Your task to perform on an android device: turn notification dots off Image 0: 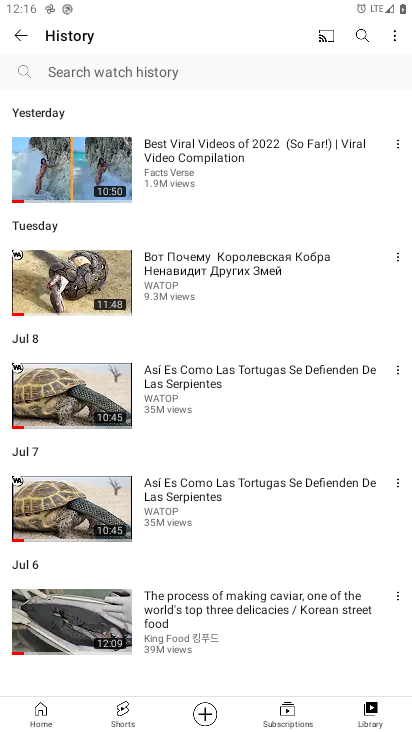
Step 0: press home button
Your task to perform on an android device: turn notification dots off Image 1: 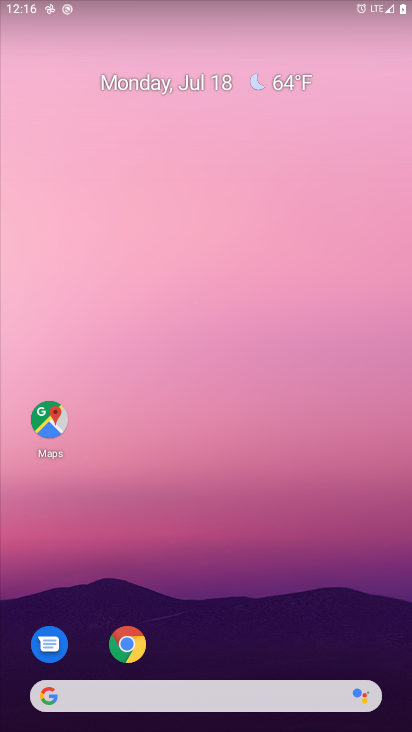
Step 1: drag from (340, 632) to (300, 123)
Your task to perform on an android device: turn notification dots off Image 2: 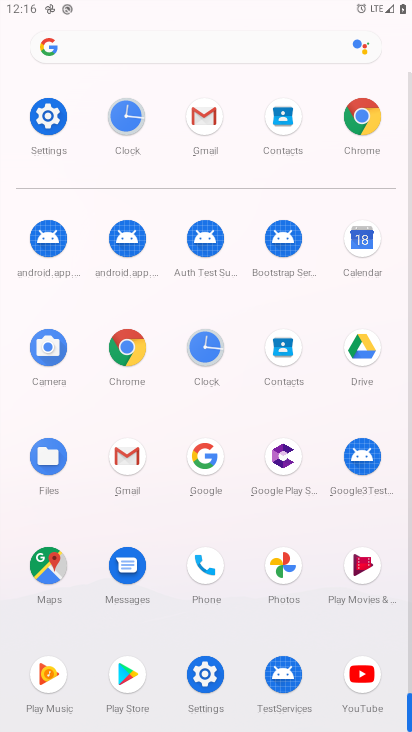
Step 2: click (46, 115)
Your task to perform on an android device: turn notification dots off Image 3: 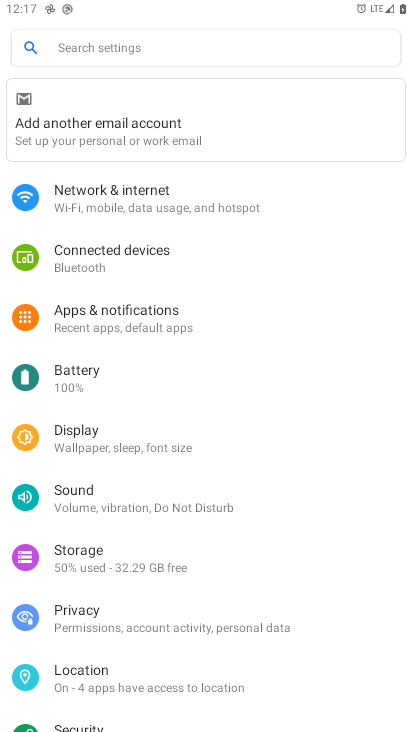
Step 3: click (86, 312)
Your task to perform on an android device: turn notification dots off Image 4: 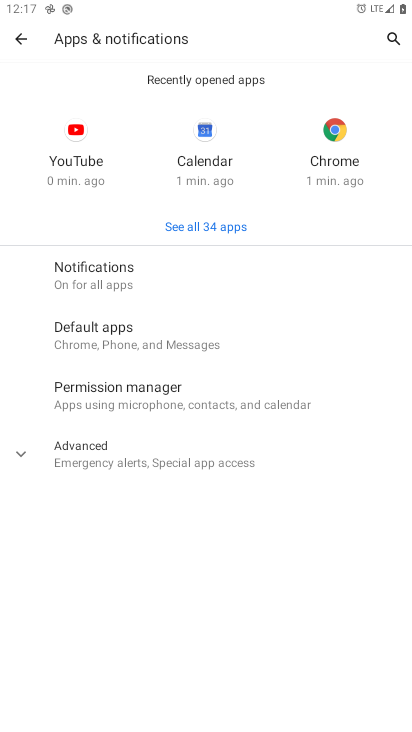
Step 4: click (22, 455)
Your task to perform on an android device: turn notification dots off Image 5: 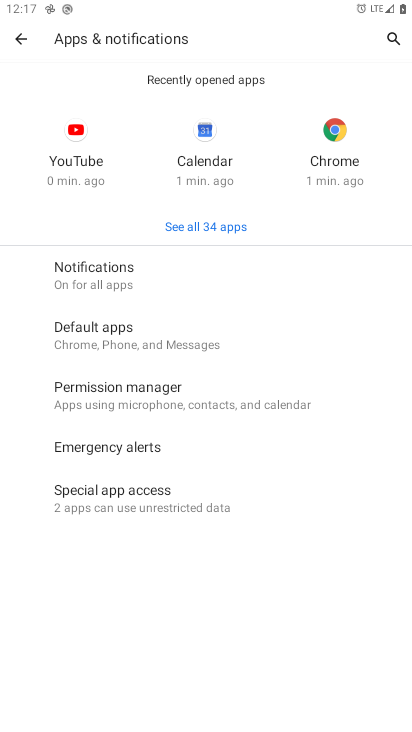
Step 5: click (86, 275)
Your task to perform on an android device: turn notification dots off Image 6: 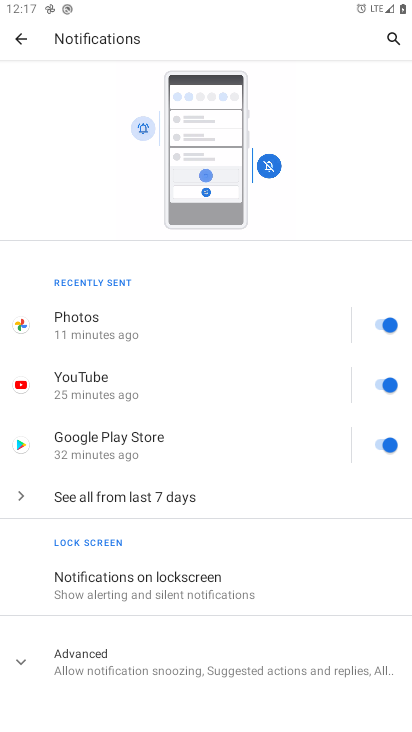
Step 6: click (21, 663)
Your task to perform on an android device: turn notification dots off Image 7: 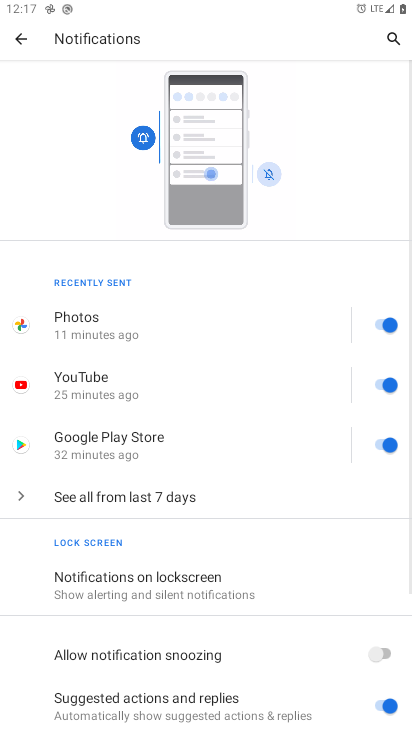
Step 7: drag from (293, 547) to (277, 329)
Your task to perform on an android device: turn notification dots off Image 8: 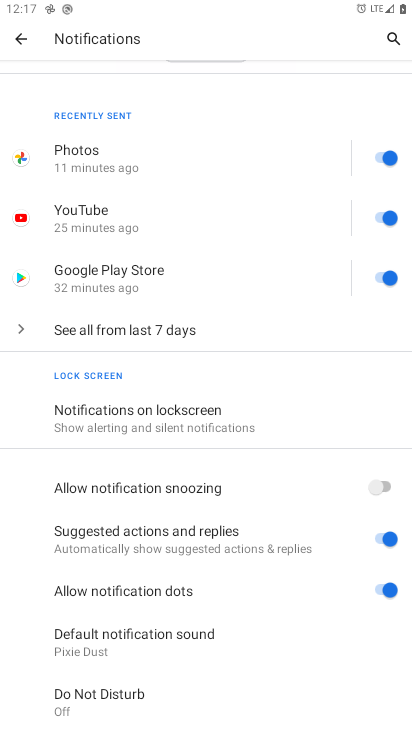
Step 8: click (383, 586)
Your task to perform on an android device: turn notification dots off Image 9: 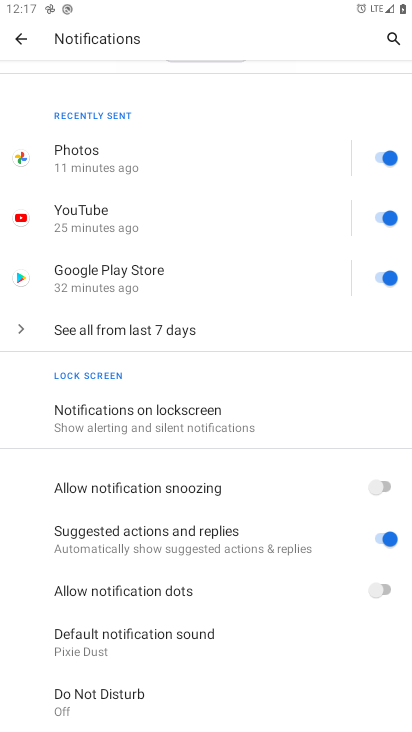
Step 9: task complete